Your task to perform on an android device: Open Wikipedia Image 0: 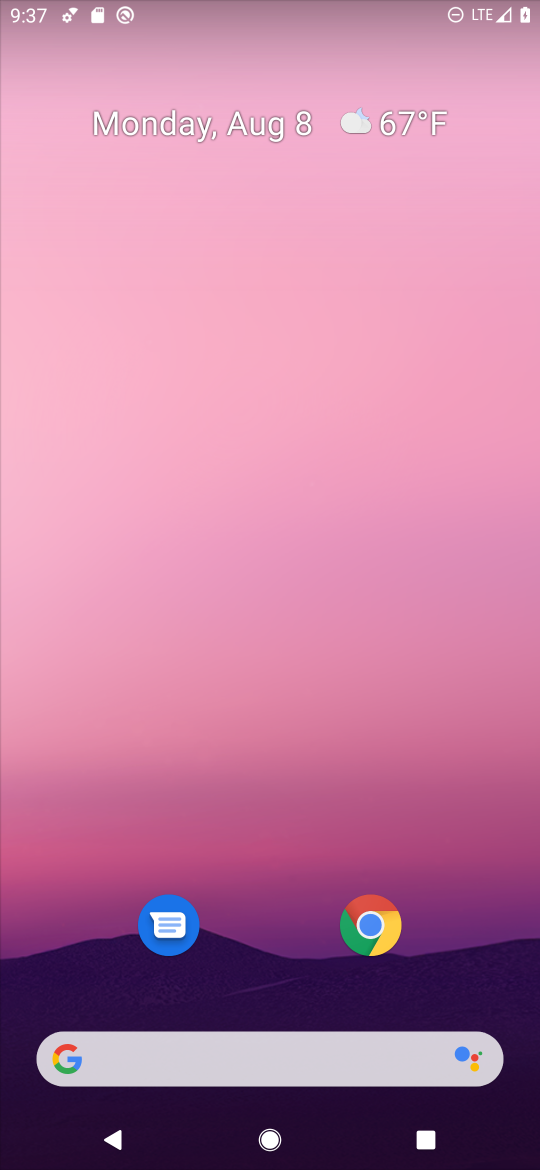
Step 0: drag from (268, 950) to (280, 377)
Your task to perform on an android device: Open Wikipedia Image 1: 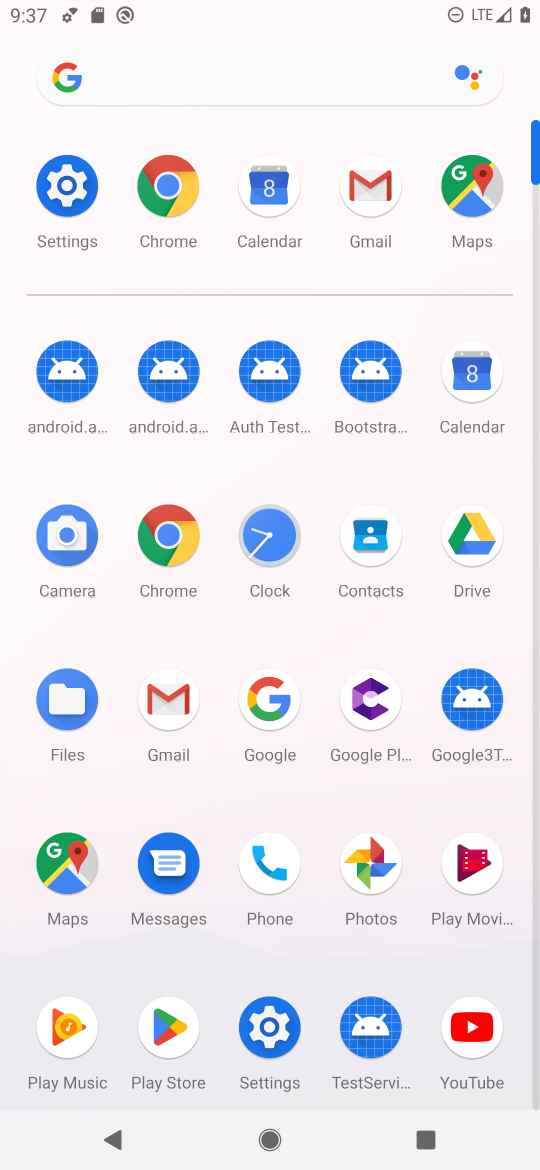
Step 1: click (159, 520)
Your task to perform on an android device: Open Wikipedia Image 2: 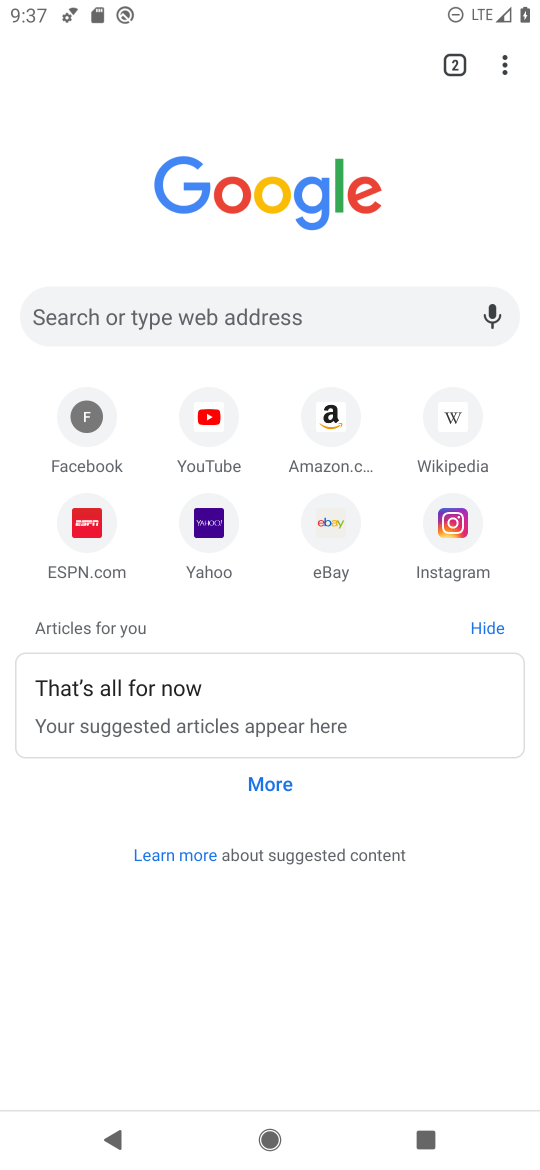
Step 2: click (454, 412)
Your task to perform on an android device: Open Wikipedia Image 3: 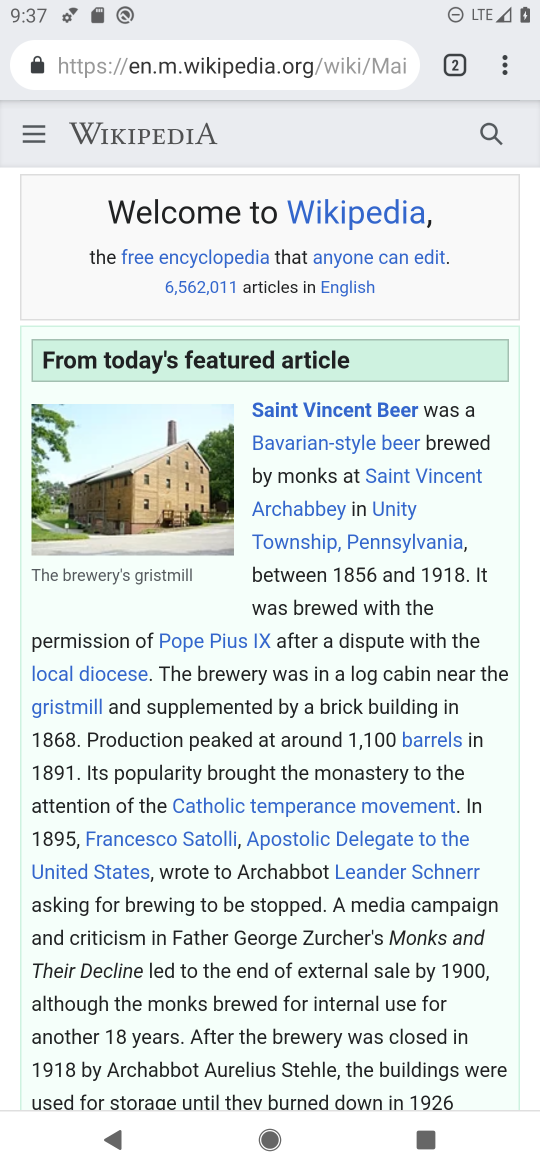
Step 3: task complete